Your task to perform on an android device: Open Yahoo.com Image 0: 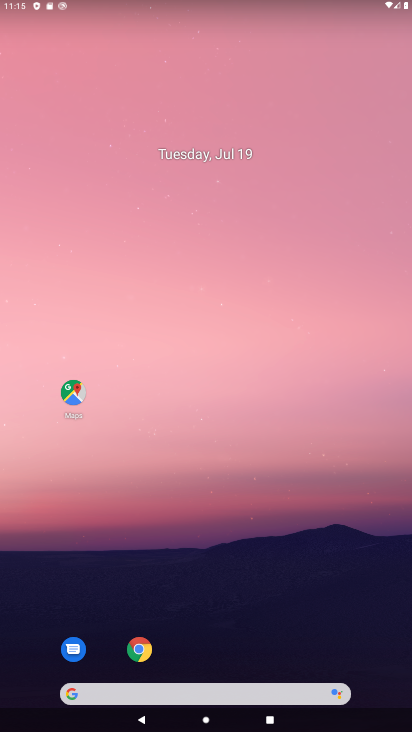
Step 0: click (144, 654)
Your task to perform on an android device: Open Yahoo.com Image 1: 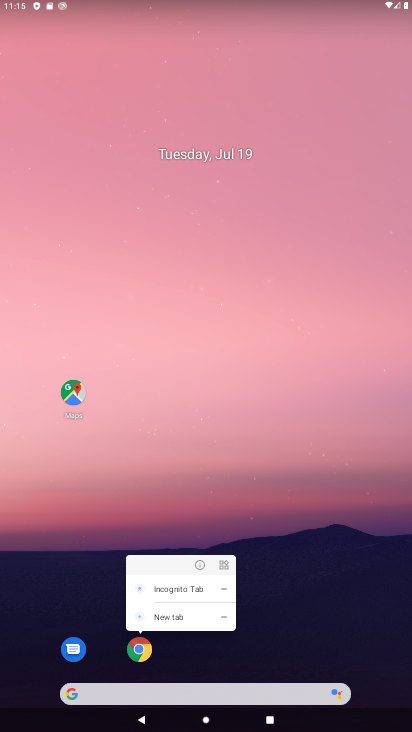
Step 1: click (144, 654)
Your task to perform on an android device: Open Yahoo.com Image 2: 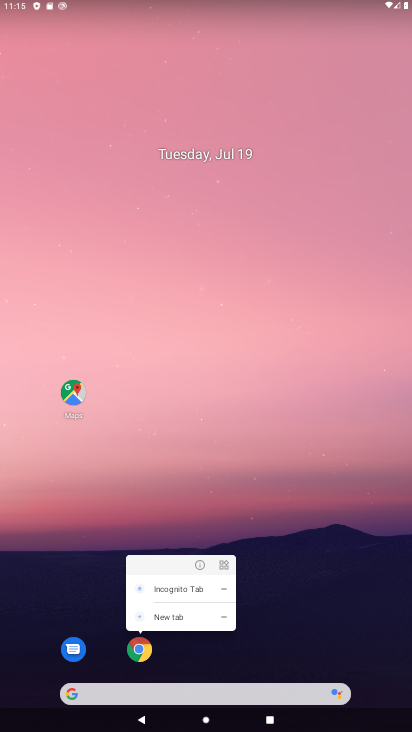
Step 2: click (129, 650)
Your task to perform on an android device: Open Yahoo.com Image 3: 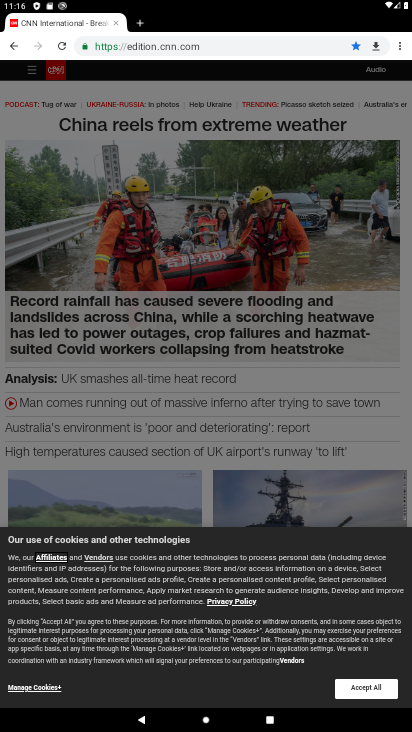
Step 3: click (398, 42)
Your task to perform on an android device: Open Yahoo.com Image 4: 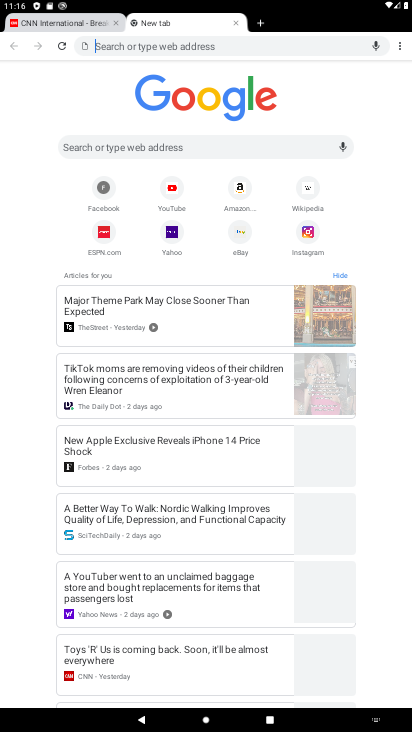
Step 4: click (166, 240)
Your task to perform on an android device: Open Yahoo.com Image 5: 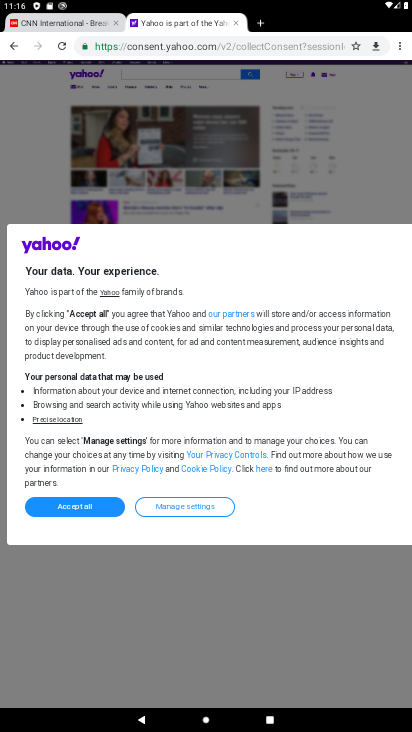
Step 5: click (88, 509)
Your task to perform on an android device: Open Yahoo.com Image 6: 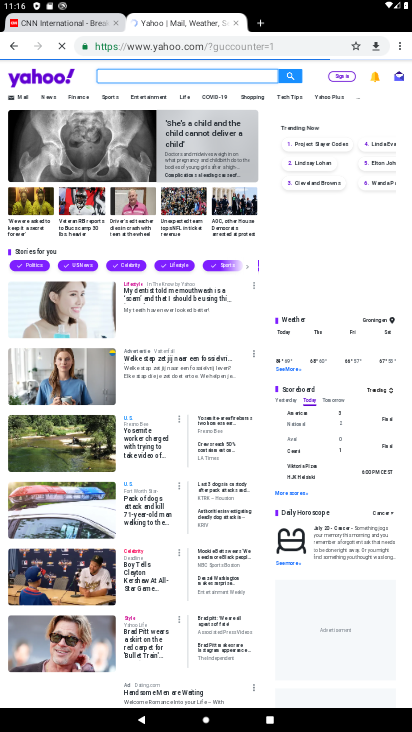
Step 6: task complete